Your task to perform on an android device: Show me recent news Image 0: 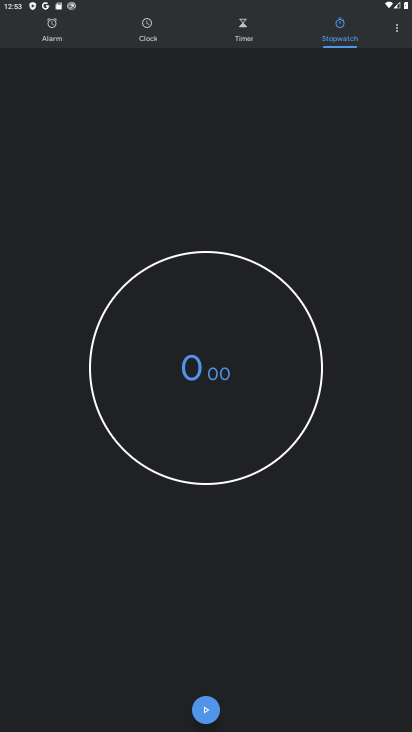
Step 0: press home button
Your task to perform on an android device: Show me recent news Image 1: 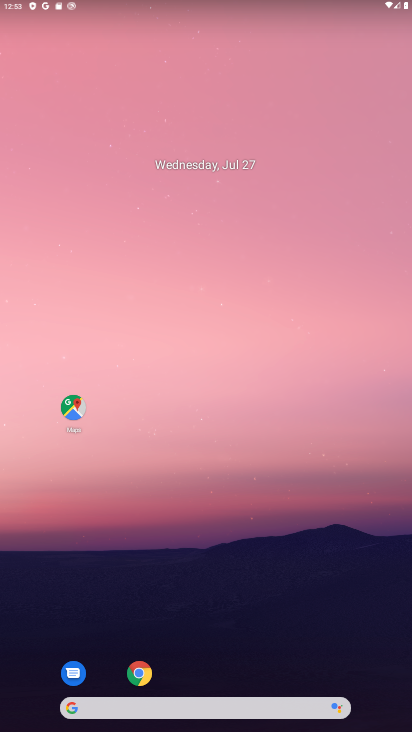
Step 1: click (164, 712)
Your task to perform on an android device: Show me recent news Image 2: 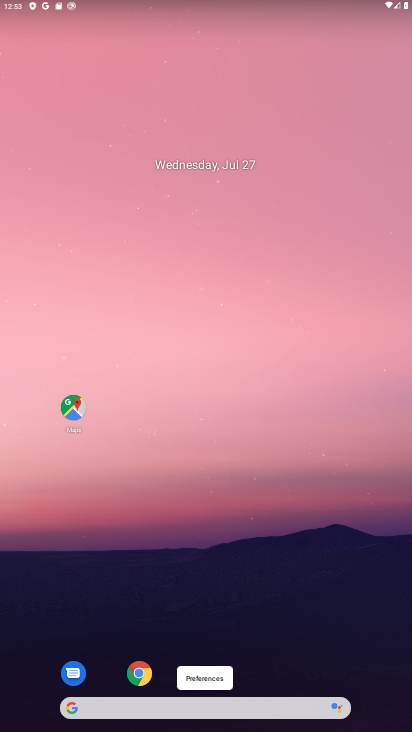
Step 2: click (141, 710)
Your task to perform on an android device: Show me recent news Image 3: 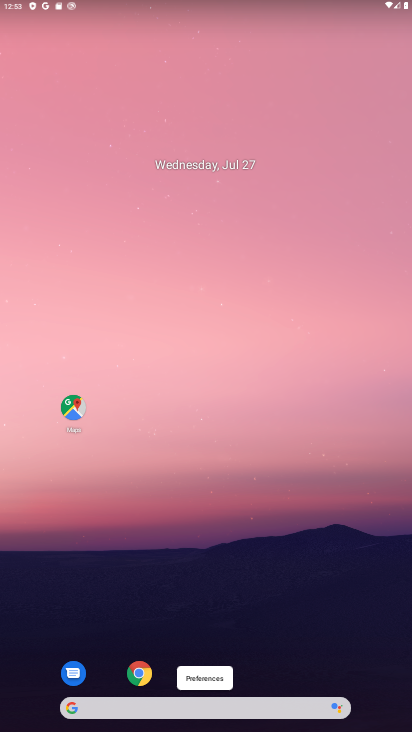
Step 3: click (110, 706)
Your task to perform on an android device: Show me recent news Image 4: 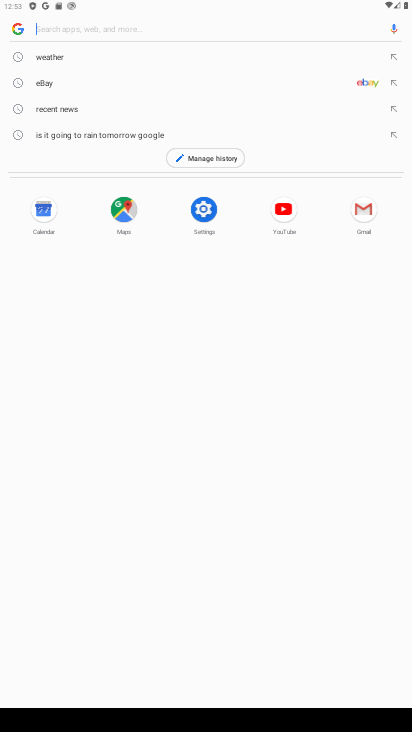
Step 4: click (50, 114)
Your task to perform on an android device: Show me recent news Image 5: 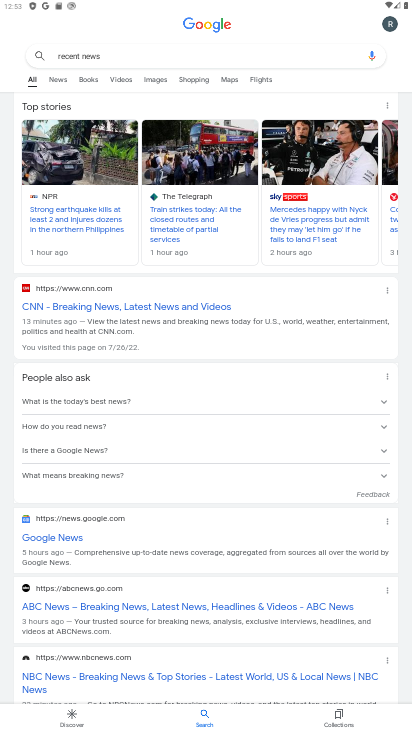
Step 5: click (51, 220)
Your task to perform on an android device: Show me recent news Image 6: 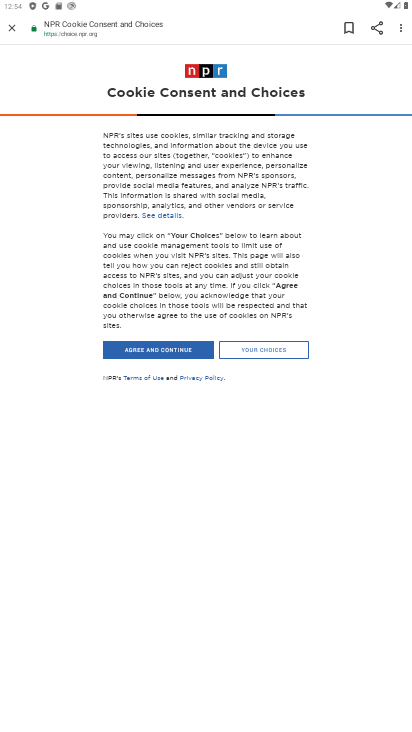
Step 6: task complete